Your task to perform on an android device: Open Chrome and go to settings Image 0: 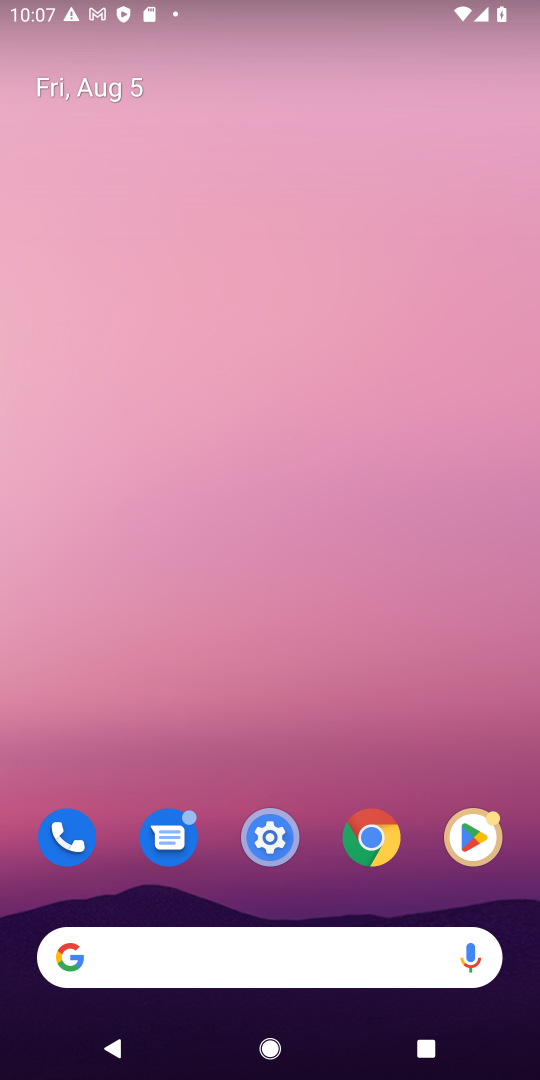
Step 0: click (365, 835)
Your task to perform on an android device: Open Chrome and go to settings Image 1: 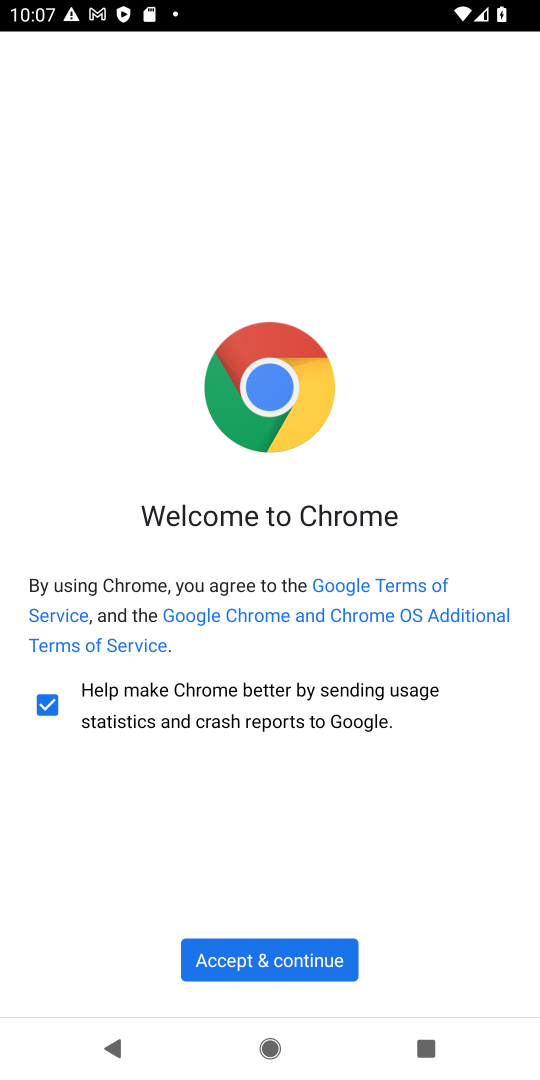
Step 1: click (326, 956)
Your task to perform on an android device: Open Chrome and go to settings Image 2: 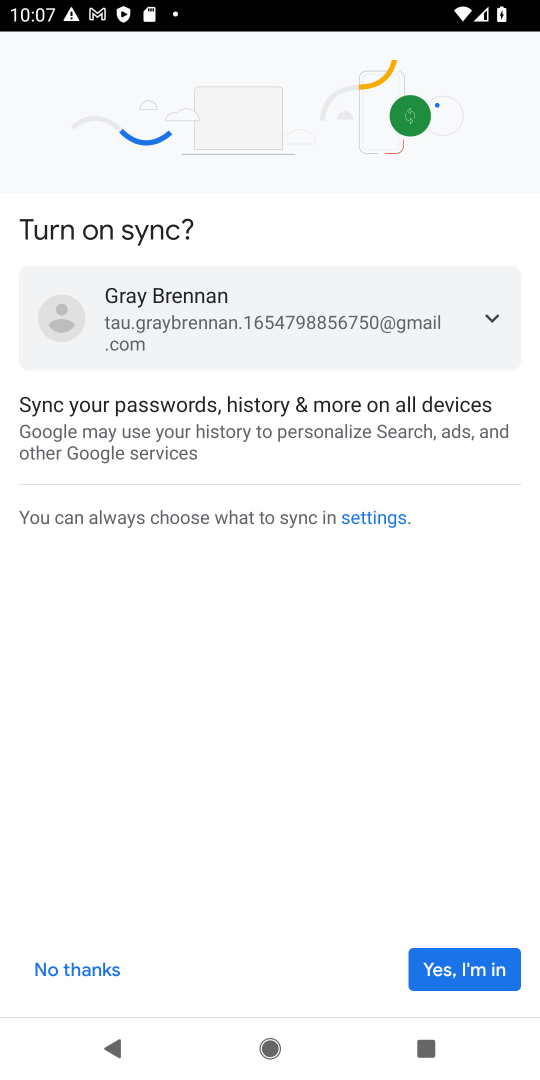
Step 2: click (442, 968)
Your task to perform on an android device: Open Chrome and go to settings Image 3: 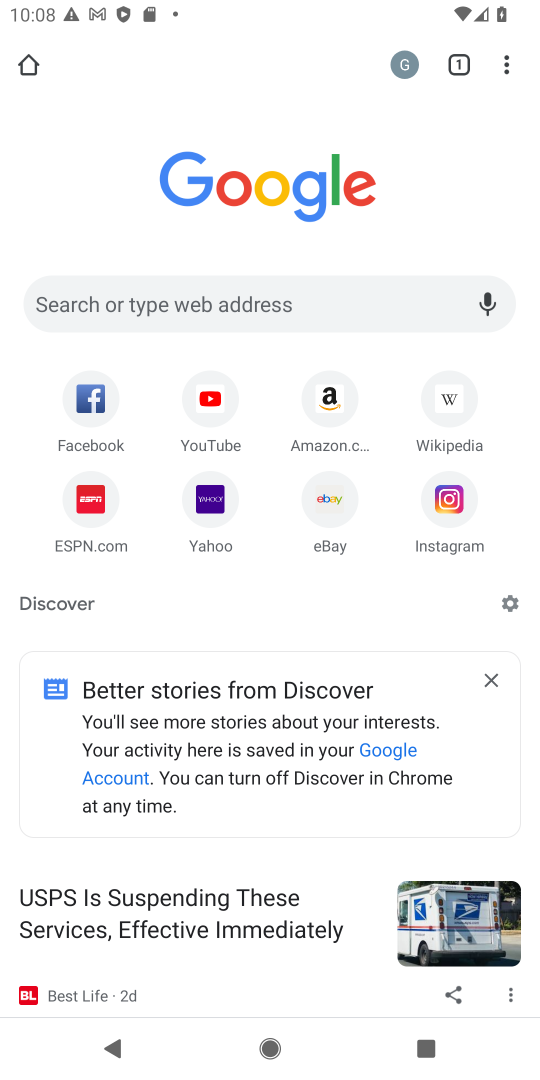
Step 3: click (508, 67)
Your task to perform on an android device: Open Chrome and go to settings Image 4: 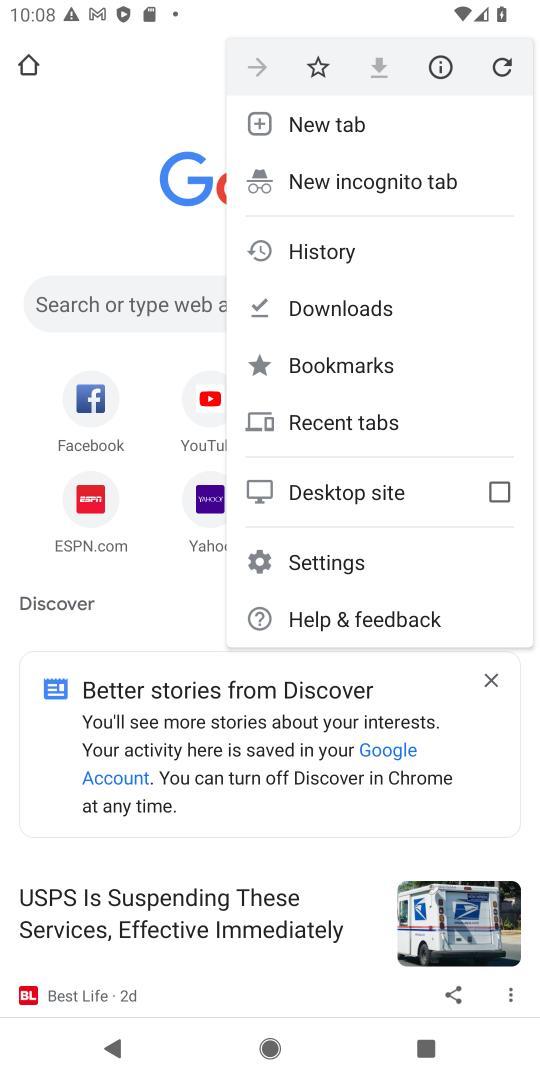
Step 4: click (348, 552)
Your task to perform on an android device: Open Chrome and go to settings Image 5: 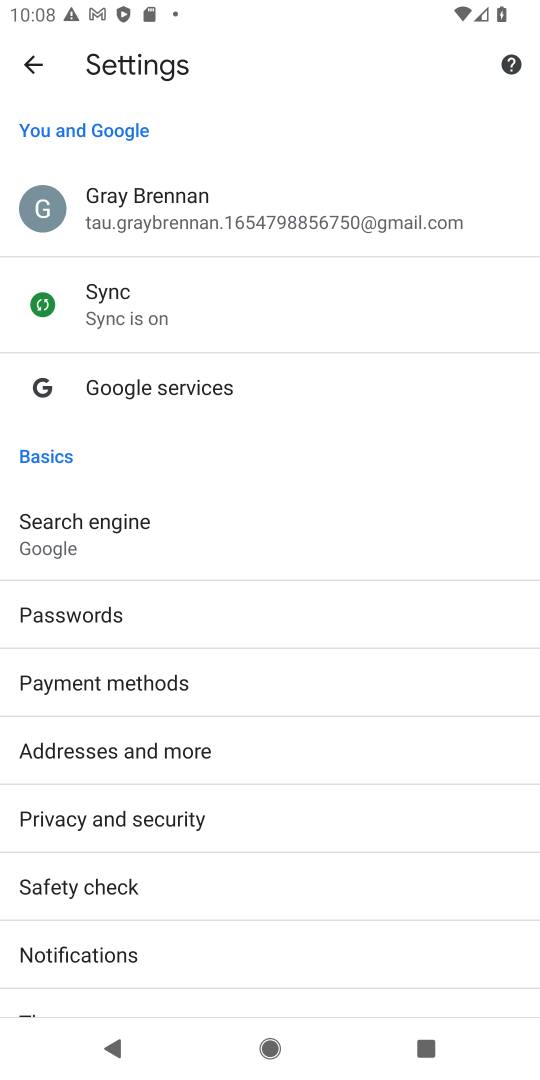
Step 5: task complete